Your task to perform on an android device: set the stopwatch Image 0: 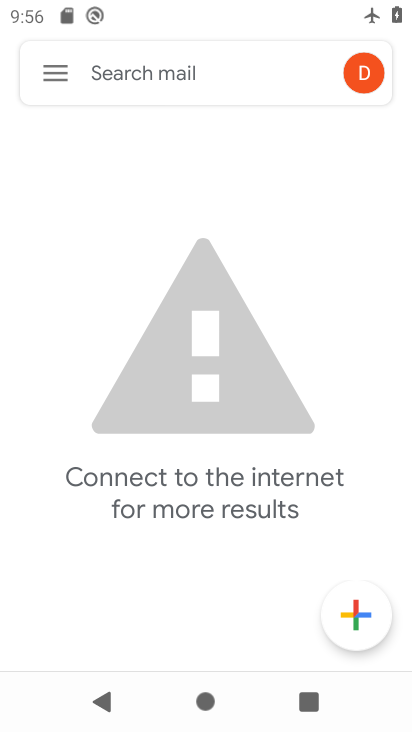
Step 0: press home button
Your task to perform on an android device: set the stopwatch Image 1: 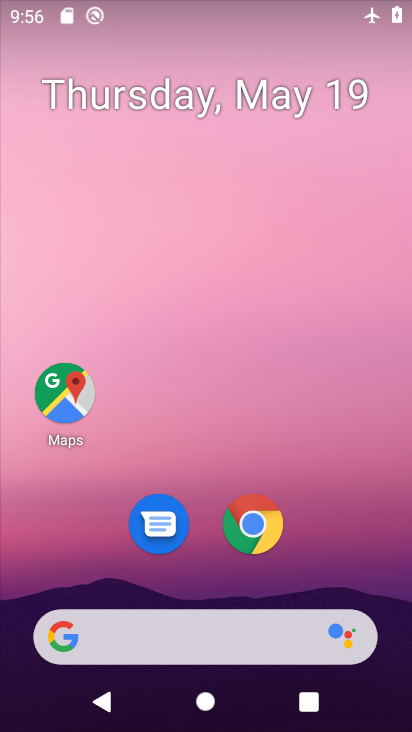
Step 1: drag from (236, 439) to (240, 0)
Your task to perform on an android device: set the stopwatch Image 2: 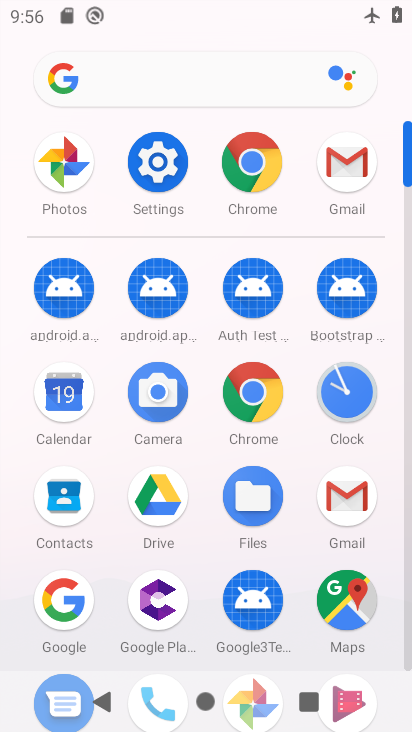
Step 2: click (352, 391)
Your task to perform on an android device: set the stopwatch Image 3: 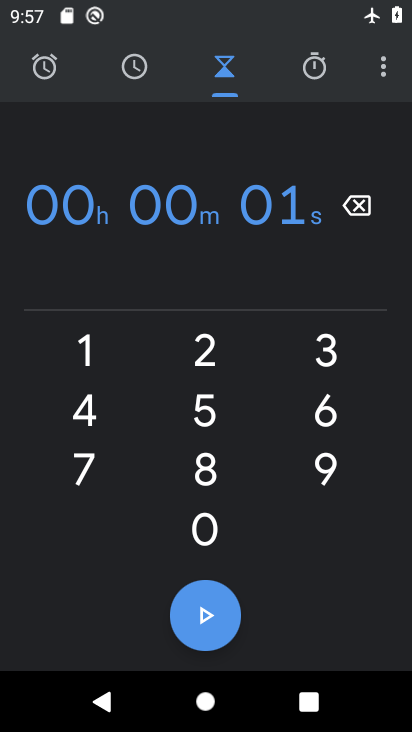
Step 3: click (317, 70)
Your task to perform on an android device: set the stopwatch Image 4: 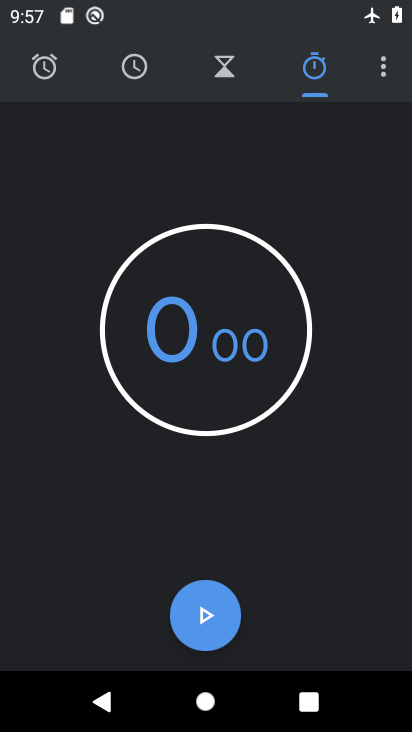
Step 4: task complete